Your task to perform on an android device: make emails show in primary in the gmail app Image 0: 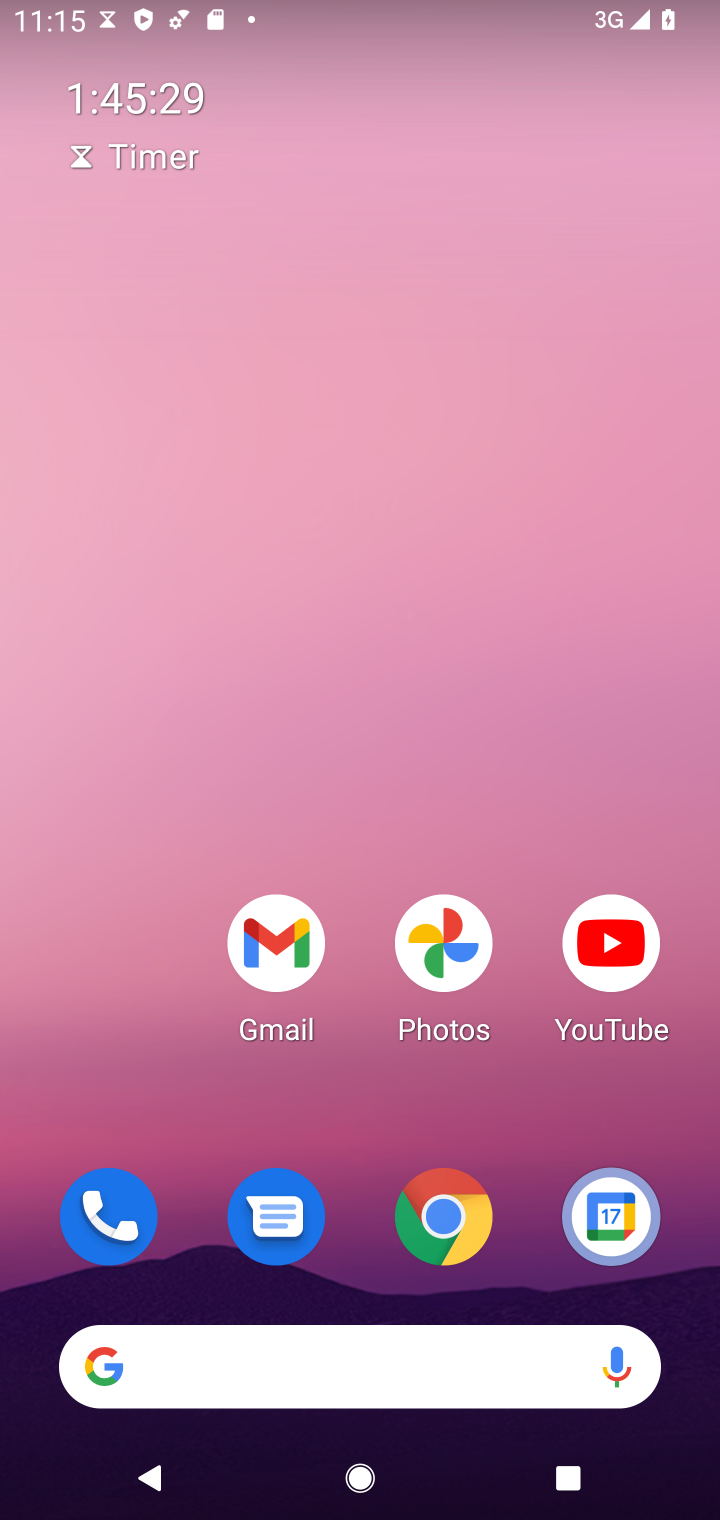
Step 0: click (299, 955)
Your task to perform on an android device: make emails show in primary in the gmail app Image 1: 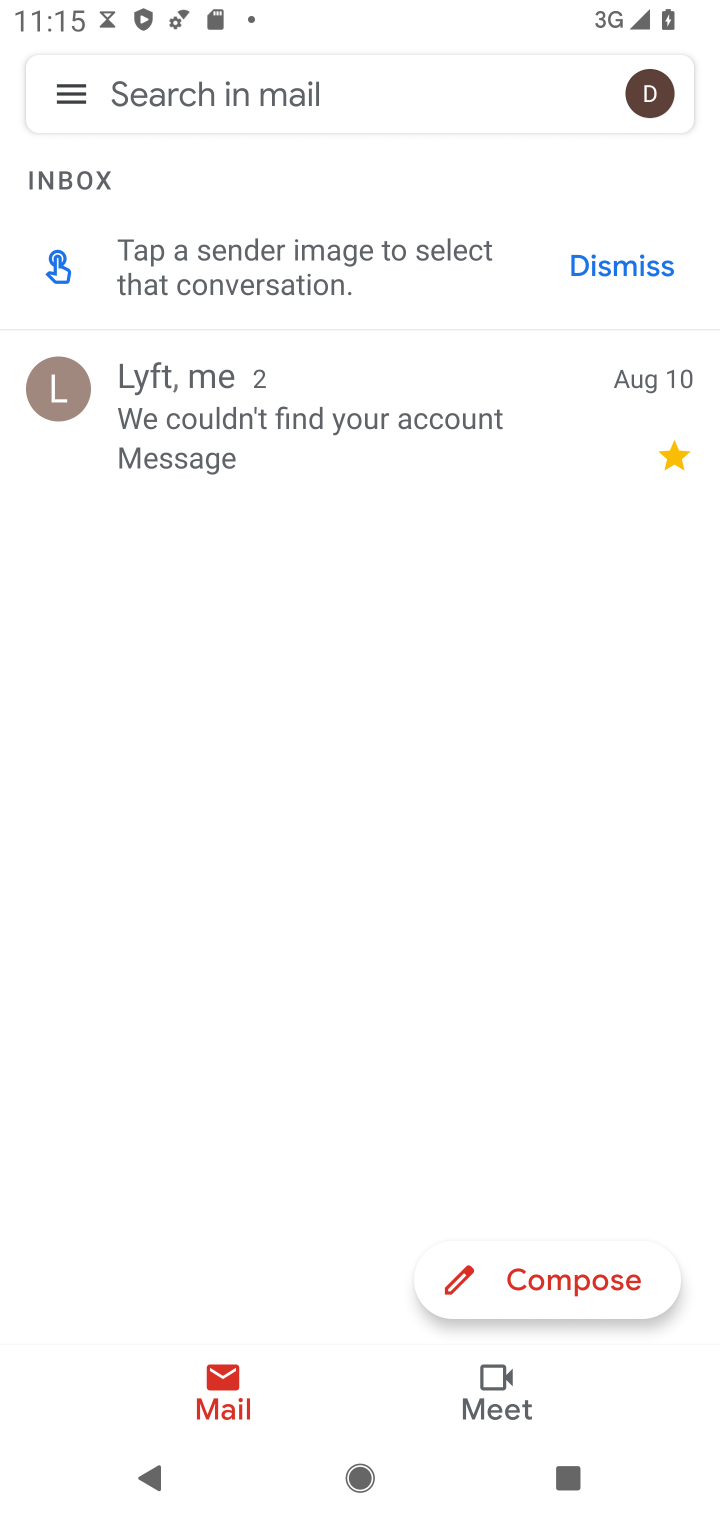
Step 1: click (52, 78)
Your task to perform on an android device: make emails show in primary in the gmail app Image 2: 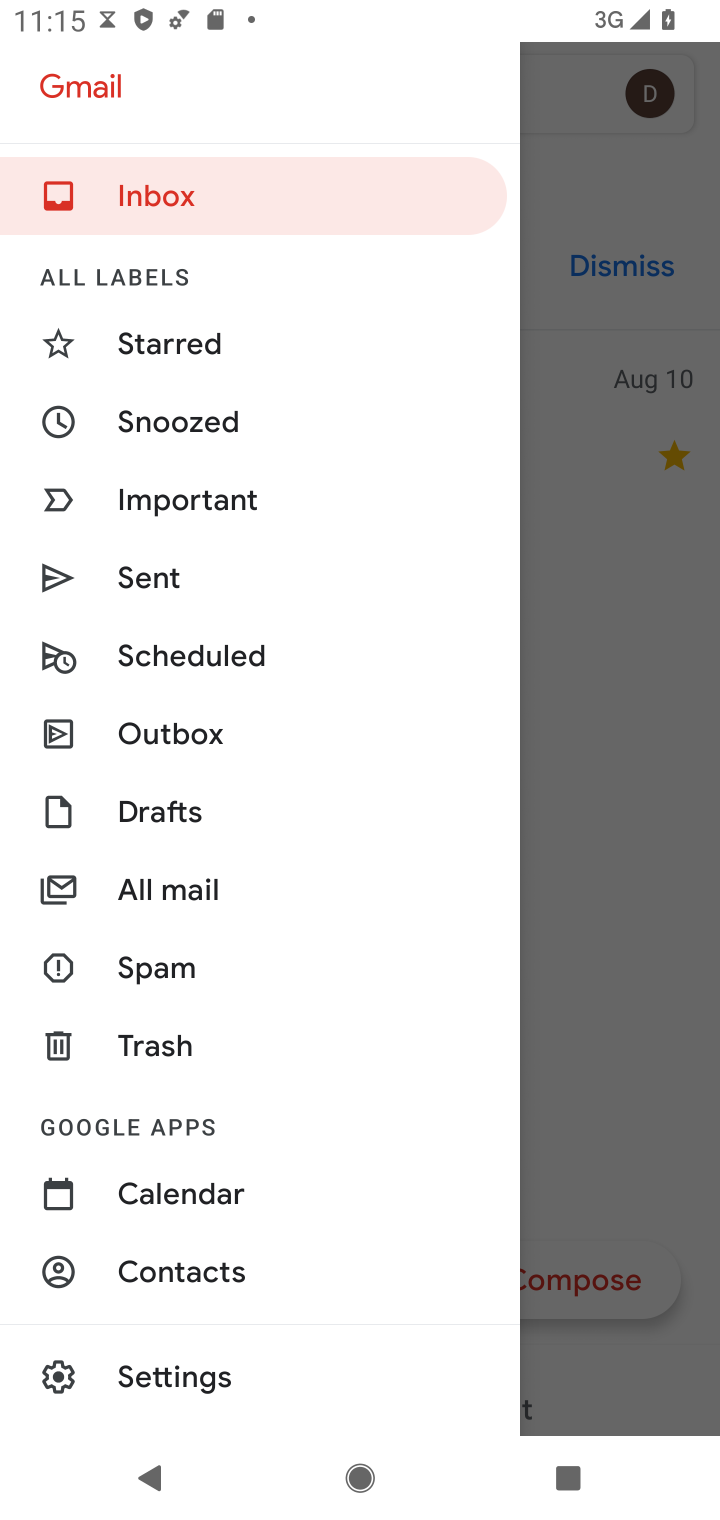
Step 2: click (186, 1370)
Your task to perform on an android device: make emails show in primary in the gmail app Image 3: 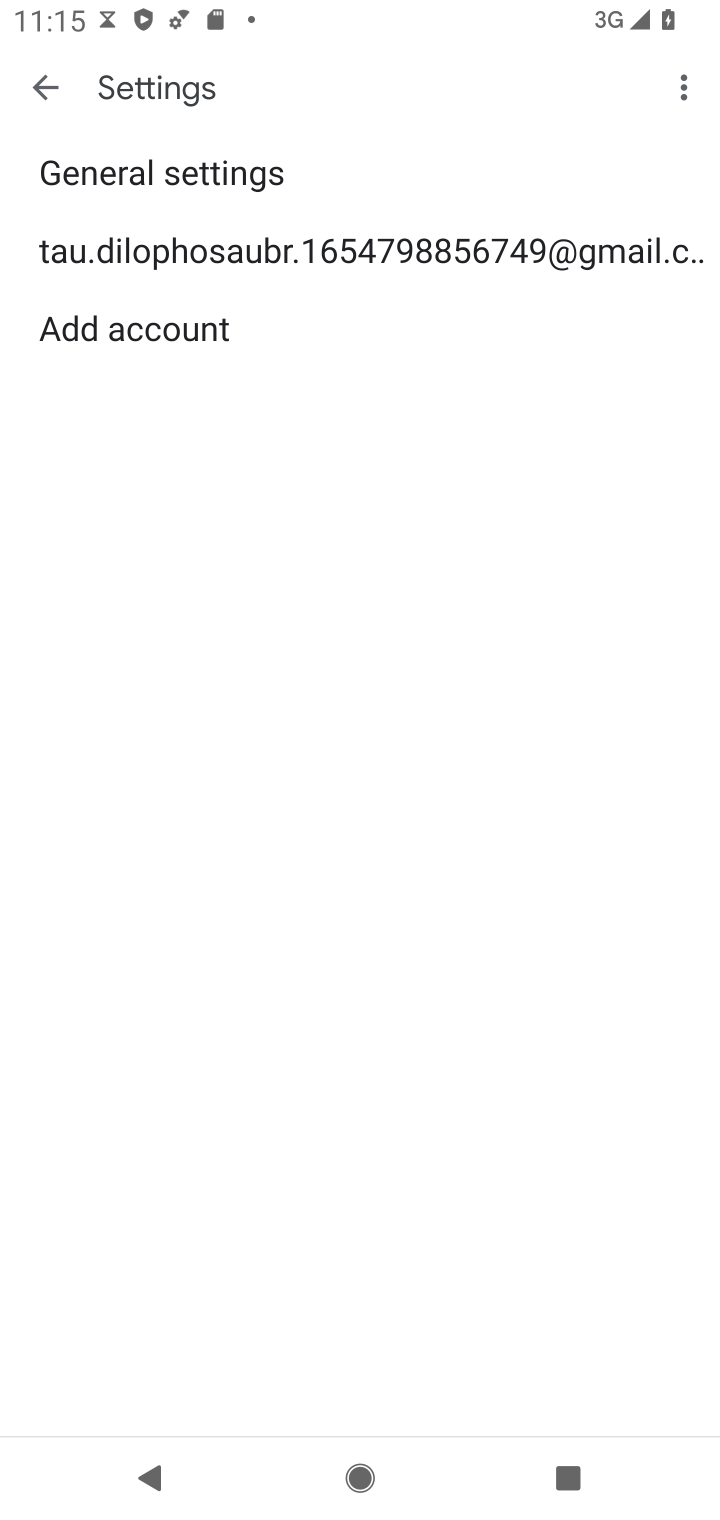
Step 3: click (354, 230)
Your task to perform on an android device: make emails show in primary in the gmail app Image 4: 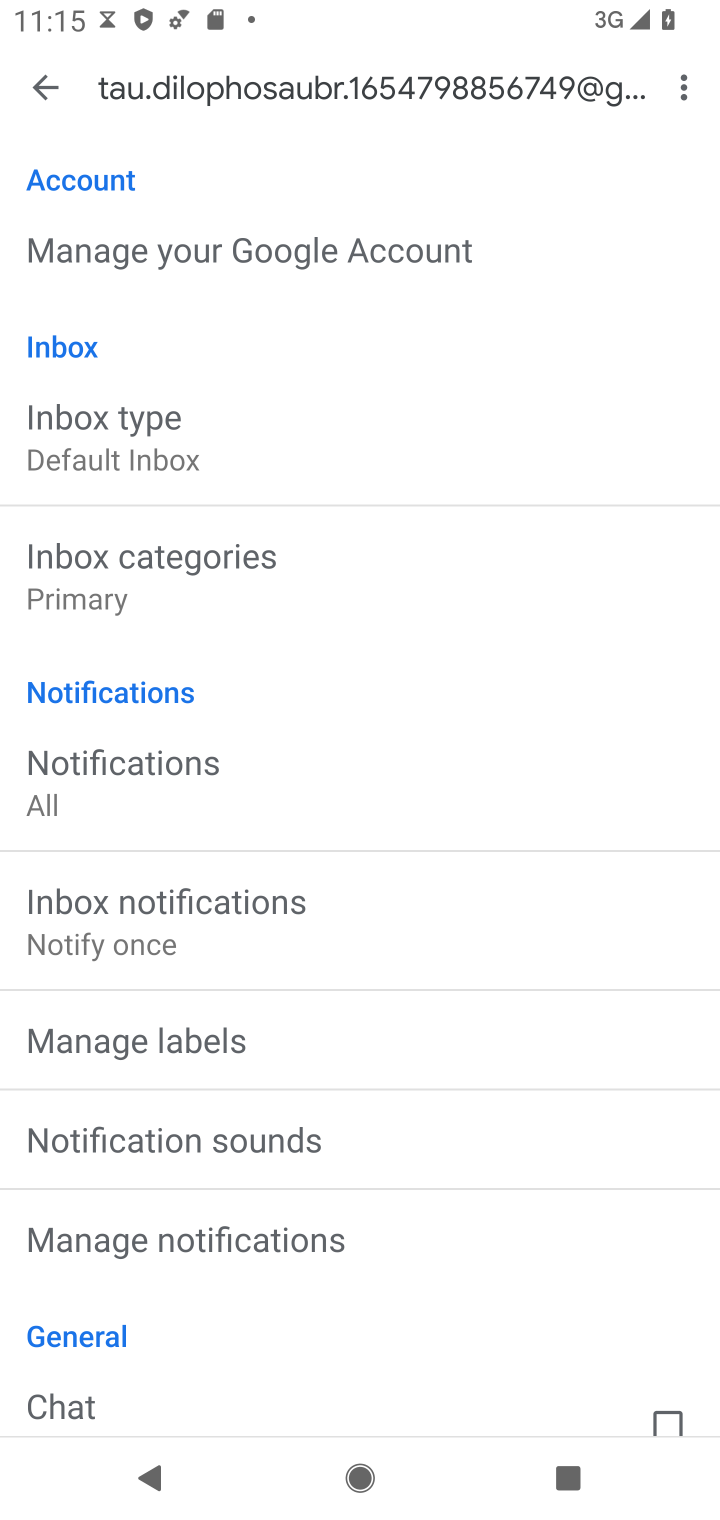
Step 4: click (146, 580)
Your task to perform on an android device: make emails show in primary in the gmail app Image 5: 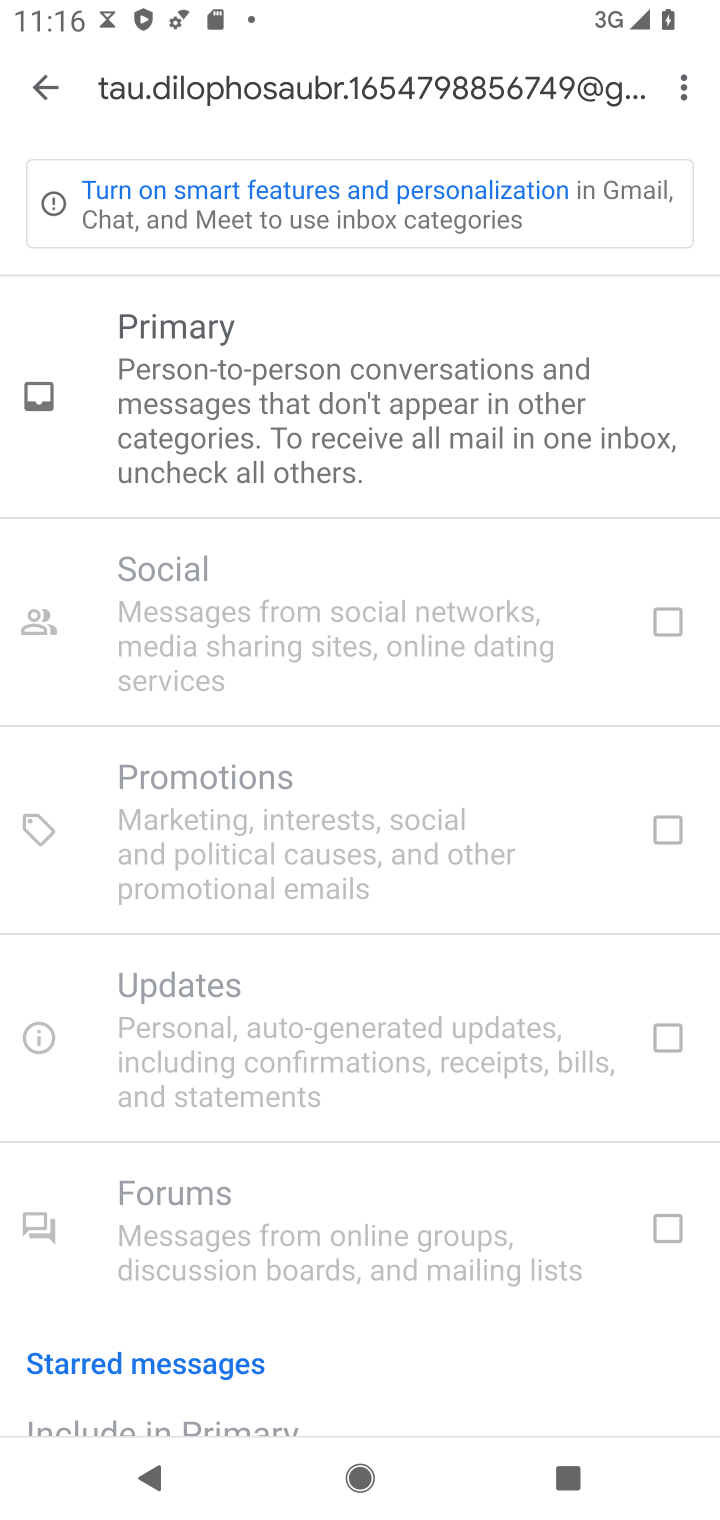
Step 5: task complete